Your task to perform on an android device: Toggle the flashlight Image 0: 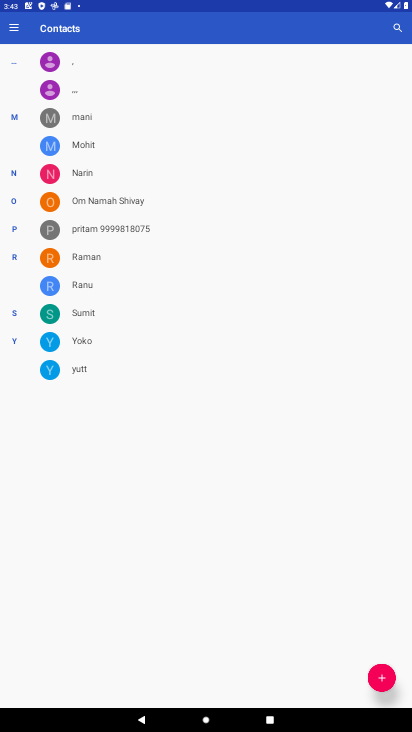
Step 0: press home button
Your task to perform on an android device: Toggle the flashlight Image 1: 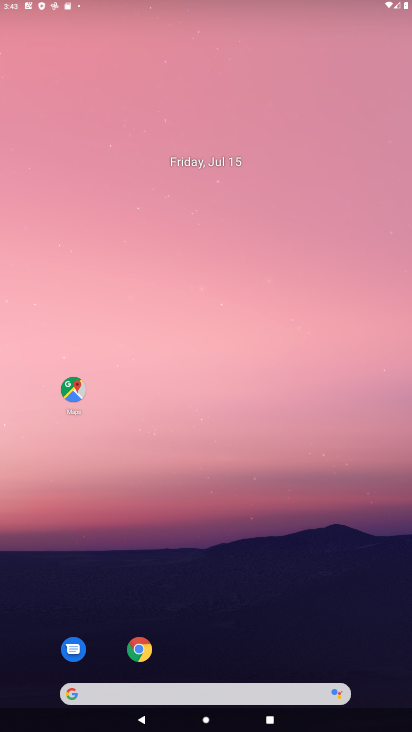
Step 1: drag from (310, 600) to (135, 123)
Your task to perform on an android device: Toggle the flashlight Image 2: 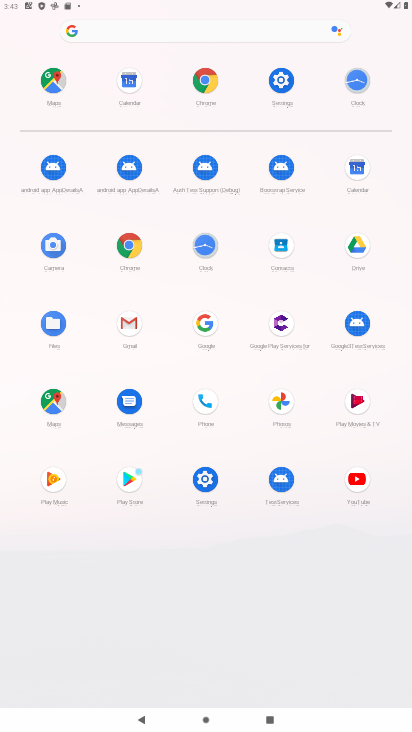
Step 2: click (271, 79)
Your task to perform on an android device: Toggle the flashlight Image 3: 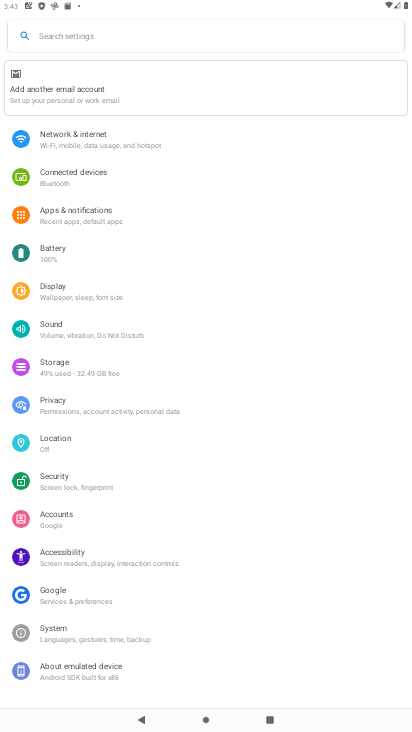
Step 3: click (77, 304)
Your task to perform on an android device: Toggle the flashlight Image 4: 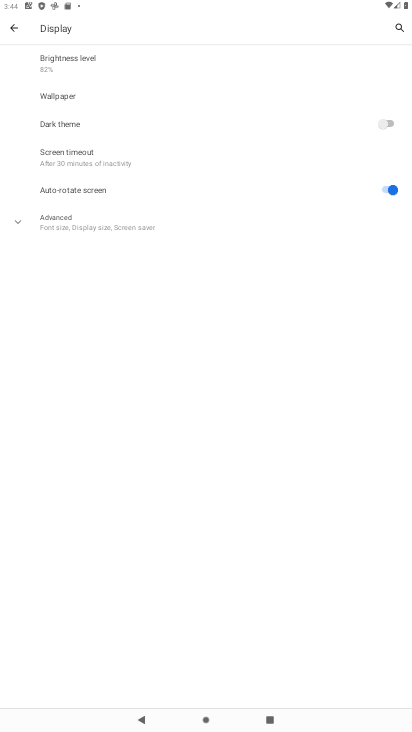
Step 4: task complete